Your task to perform on an android device: open a bookmark in the chrome app Image 0: 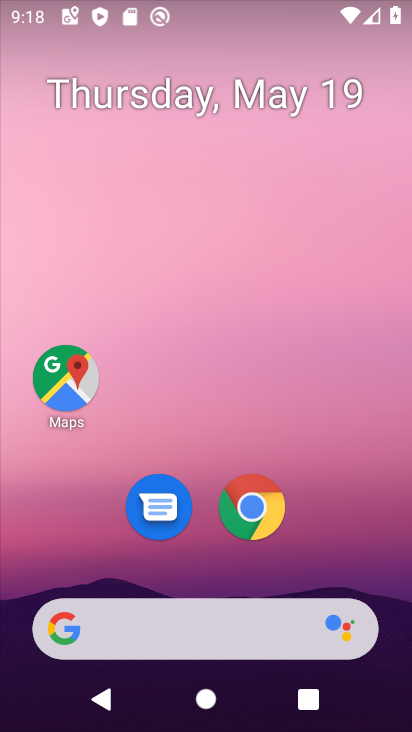
Step 0: click (258, 511)
Your task to perform on an android device: open a bookmark in the chrome app Image 1: 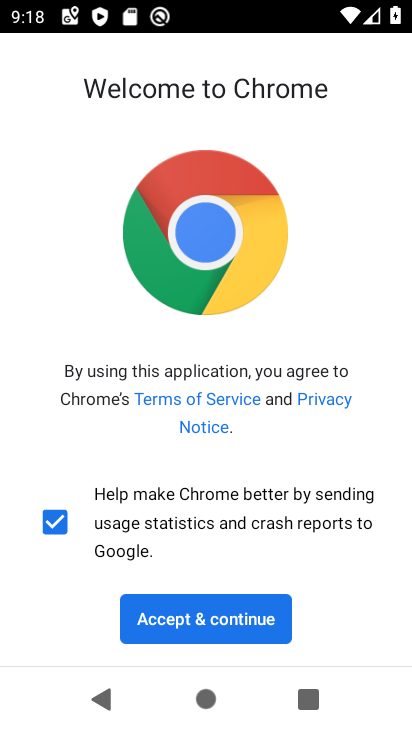
Step 1: click (207, 612)
Your task to perform on an android device: open a bookmark in the chrome app Image 2: 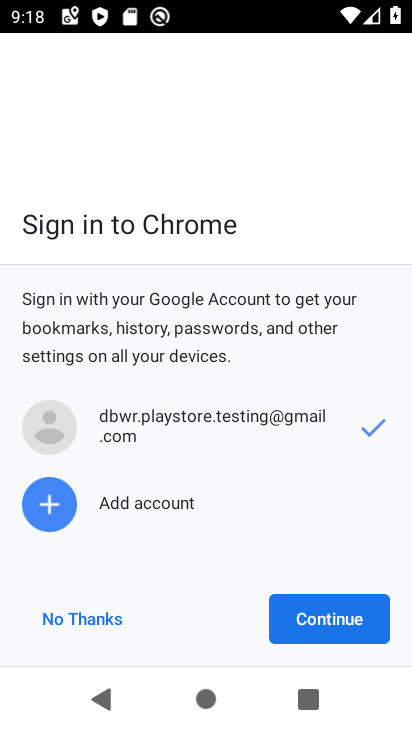
Step 2: click (351, 611)
Your task to perform on an android device: open a bookmark in the chrome app Image 3: 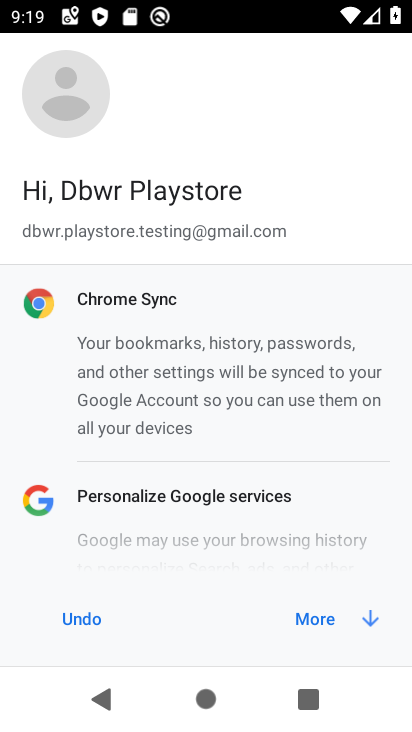
Step 3: click (351, 611)
Your task to perform on an android device: open a bookmark in the chrome app Image 4: 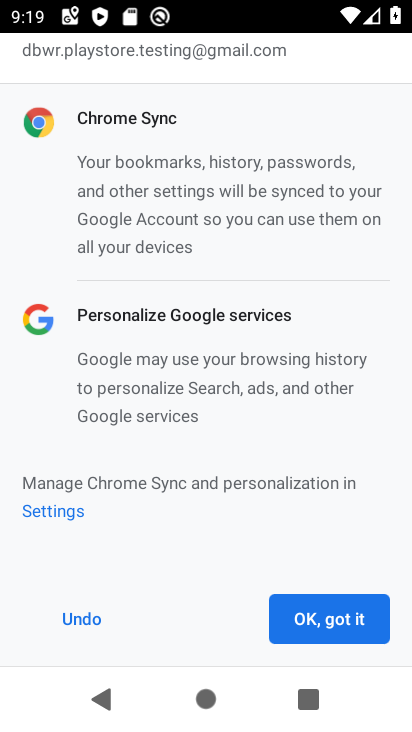
Step 4: click (351, 611)
Your task to perform on an android device: open a bookmark in the chrome app Image 5: 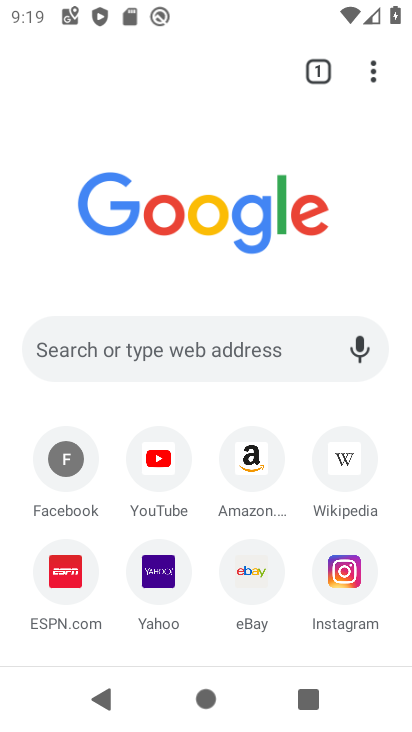
Step 5: click (371, 69)
Your task to perform on an android device: open a bookmark in the chrome app Image 6: 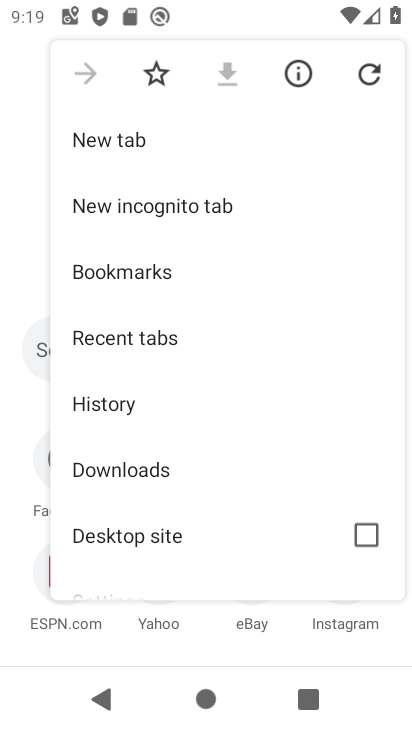
Step 6: click (122, 267)
Your task to perform on an android device: open a bookmark in the chrome app Image 7: 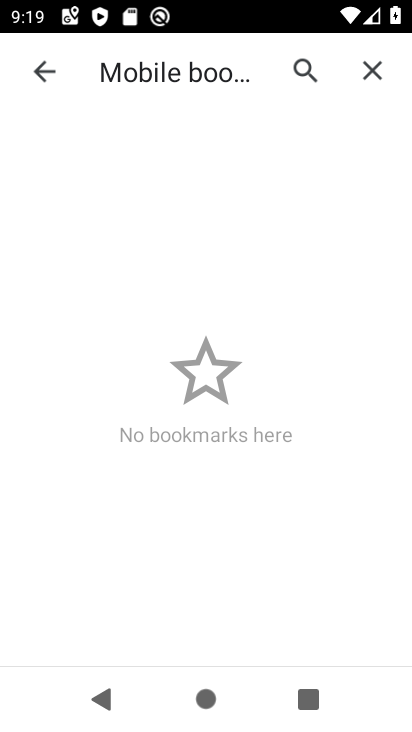
Step 7: task complete